Your task to perform on an android device: Clear the shopping cart on newegg. Image 0: 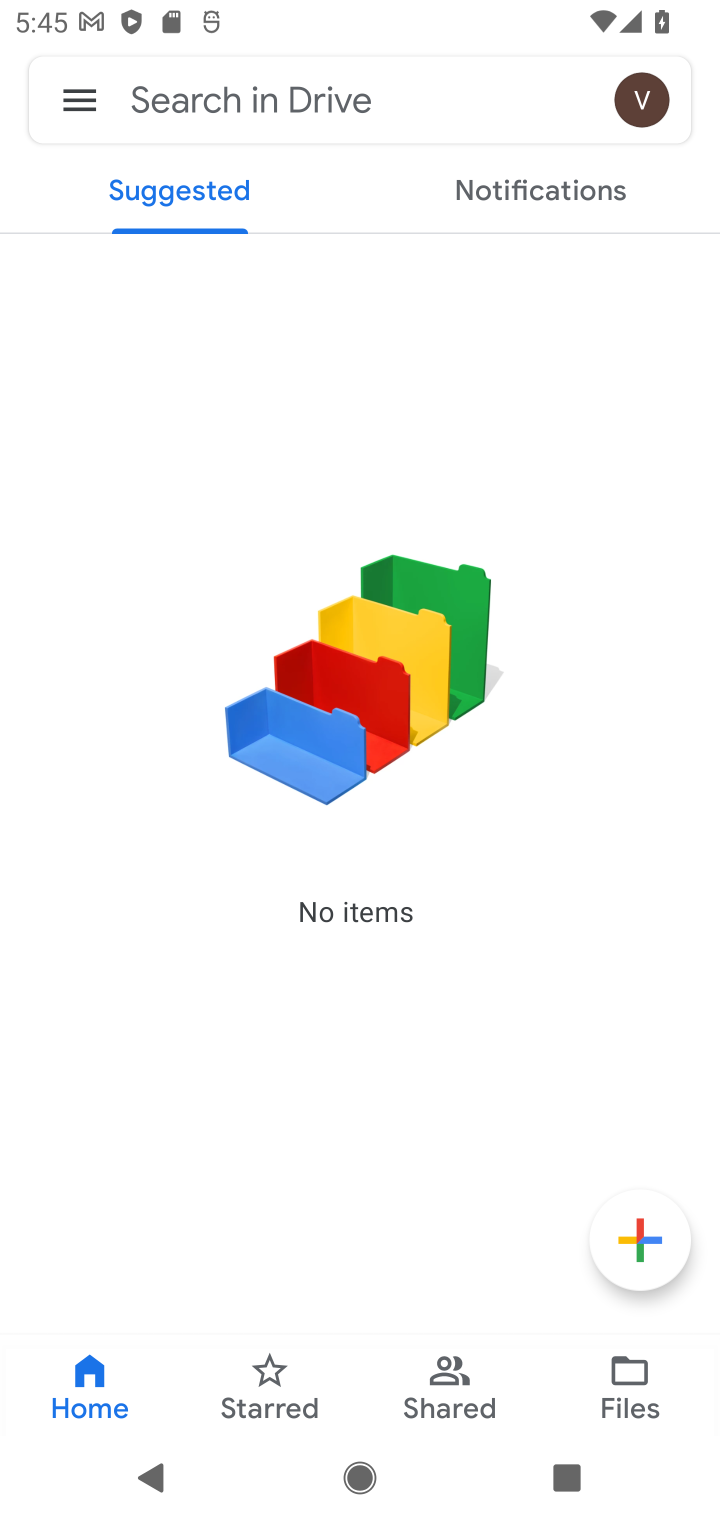
Step 0: press home button
Your task to perform on an android device: Clear the shopping cart on newegg. Image 1: 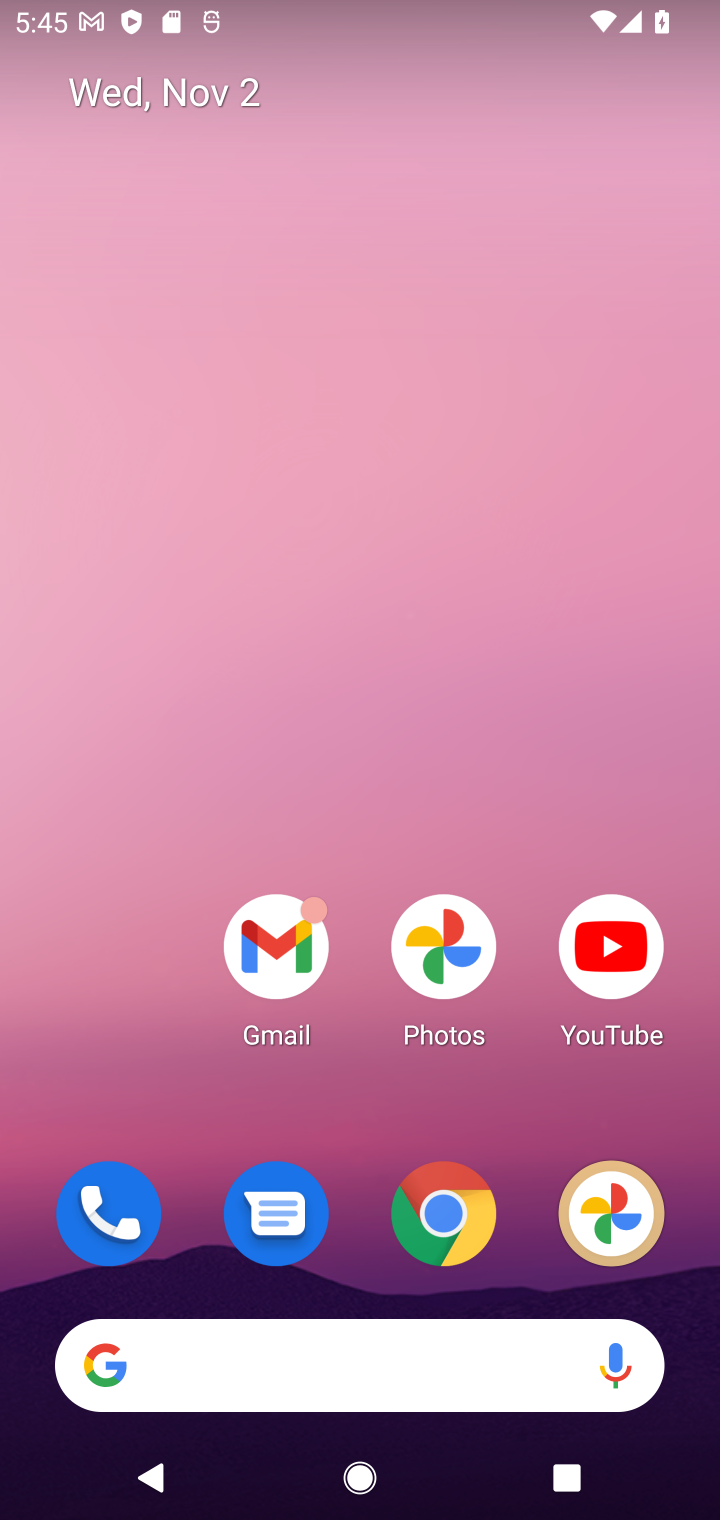
Step 1: click (434, 1221)
Your task to perform on an android device: Clear the shopping cart on newegg. Image 2: 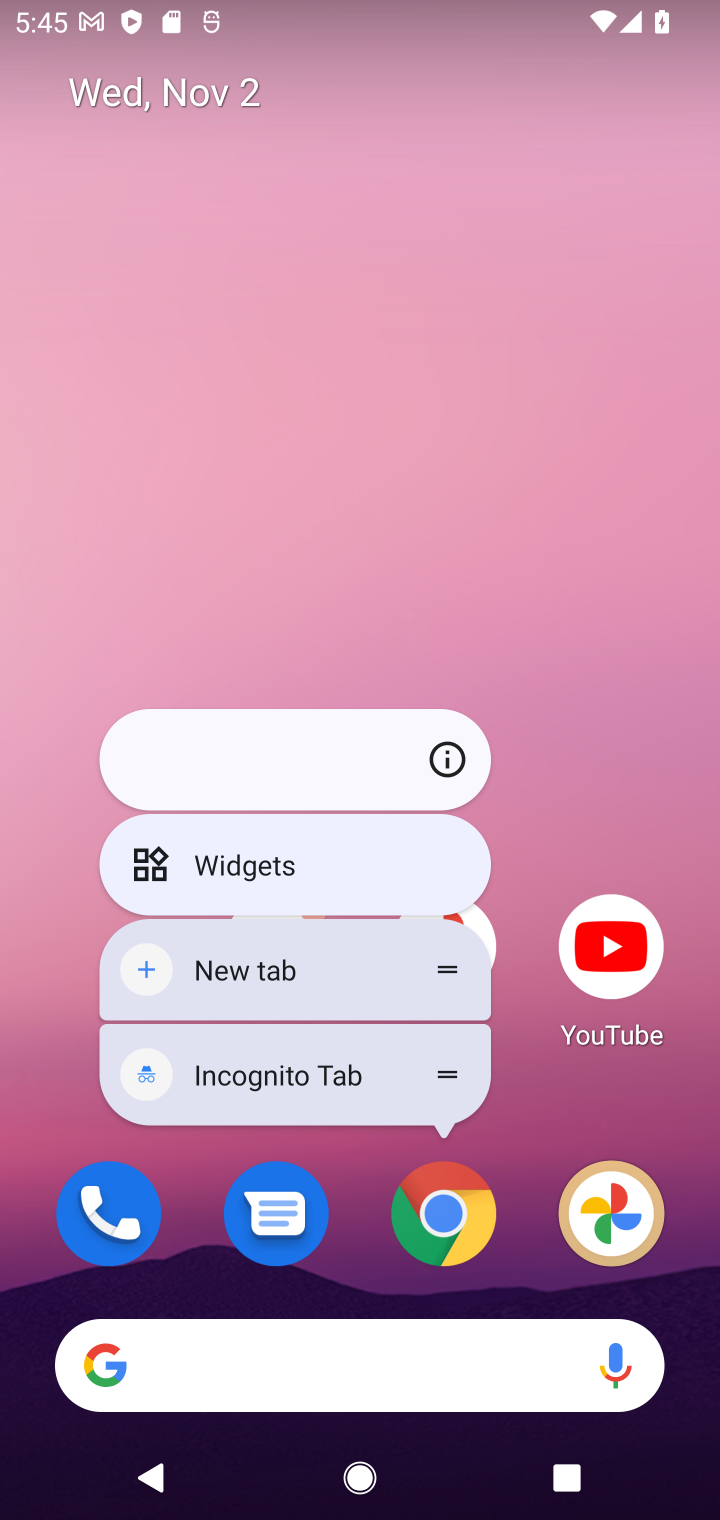
Step 2: click (450, 1220)
Your task to perform on an android device: Clear the shopping cart on newegg. Image 3: 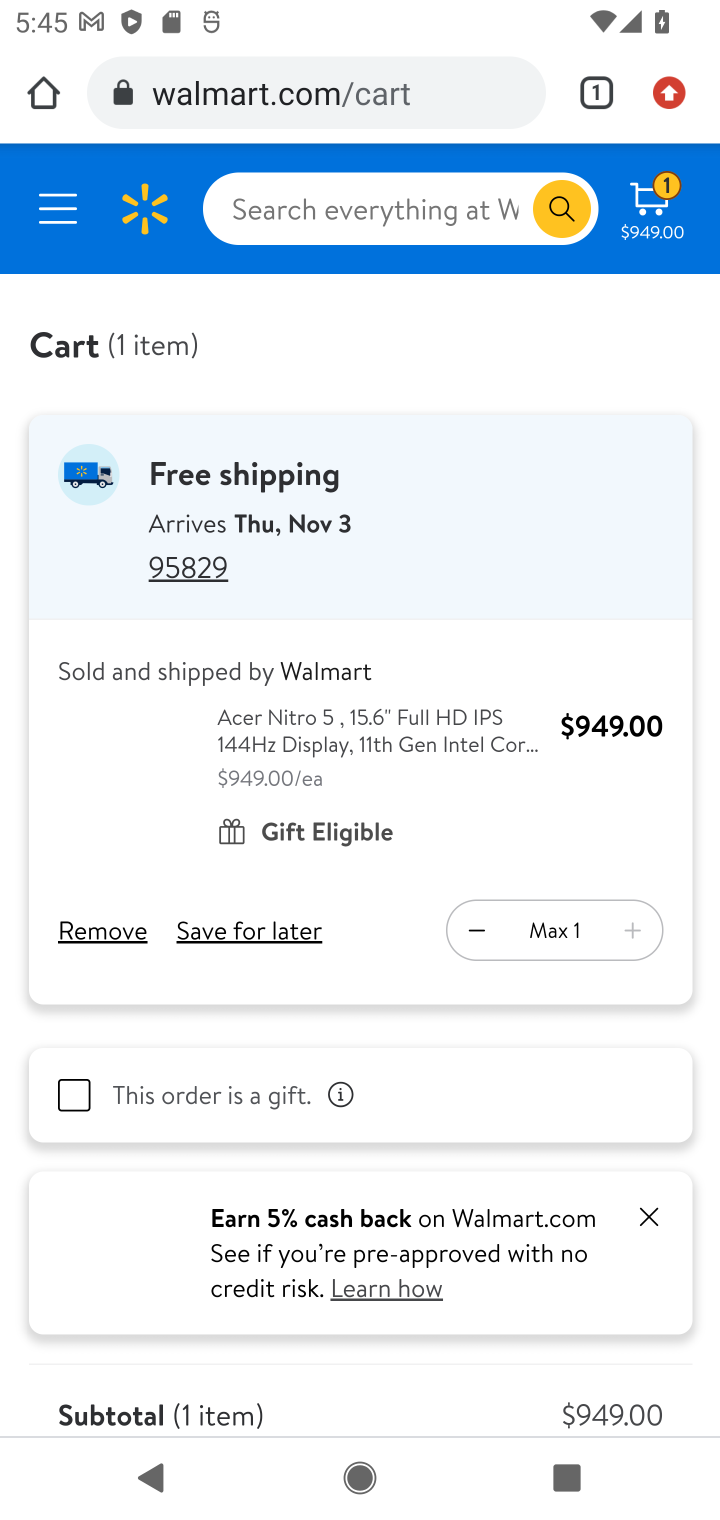
Step 3: click (429, 58)
Your task to perform on an android device: Clear the shopping cart on newegg. Image 4: 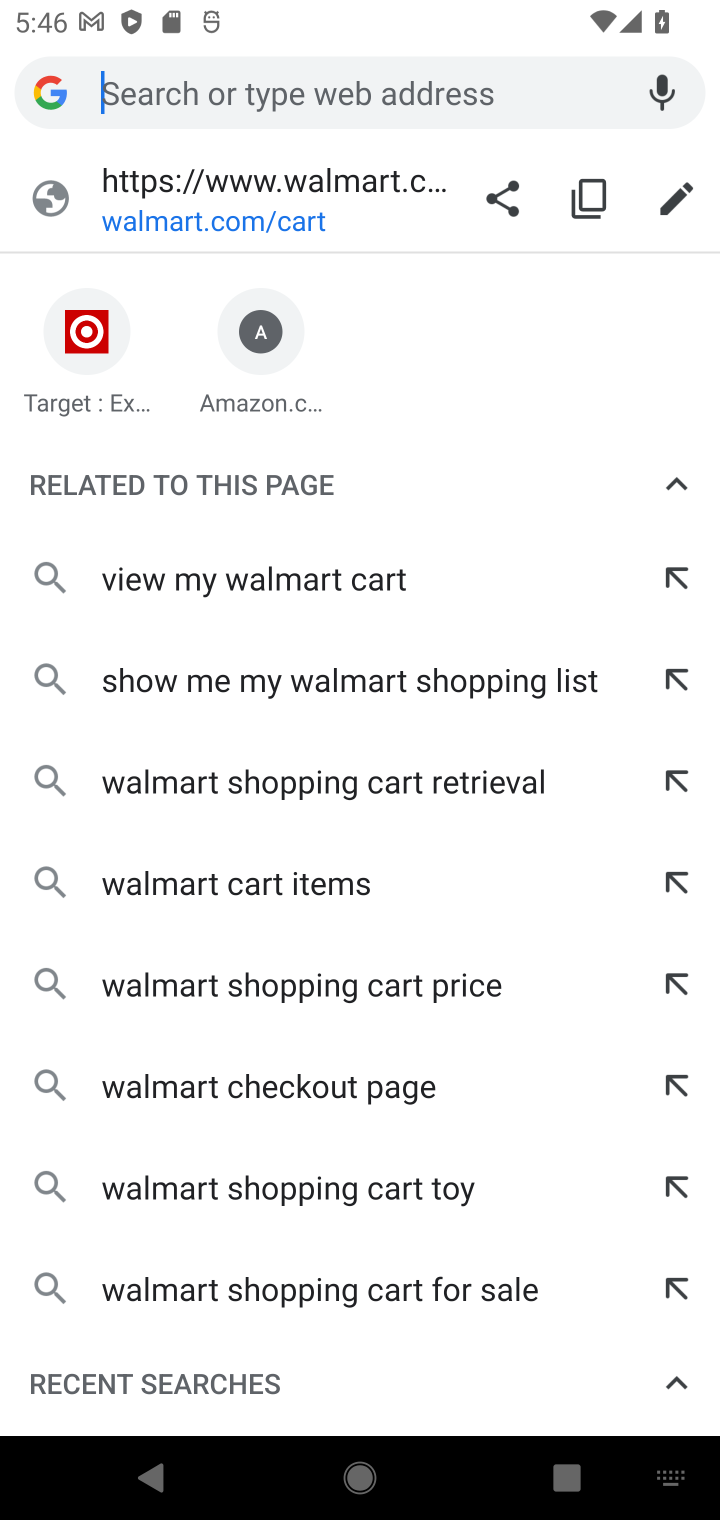
Step 4: type "newegg"
Your task to perform on an android device: Clear the shopping cart on newegg. Image 5: 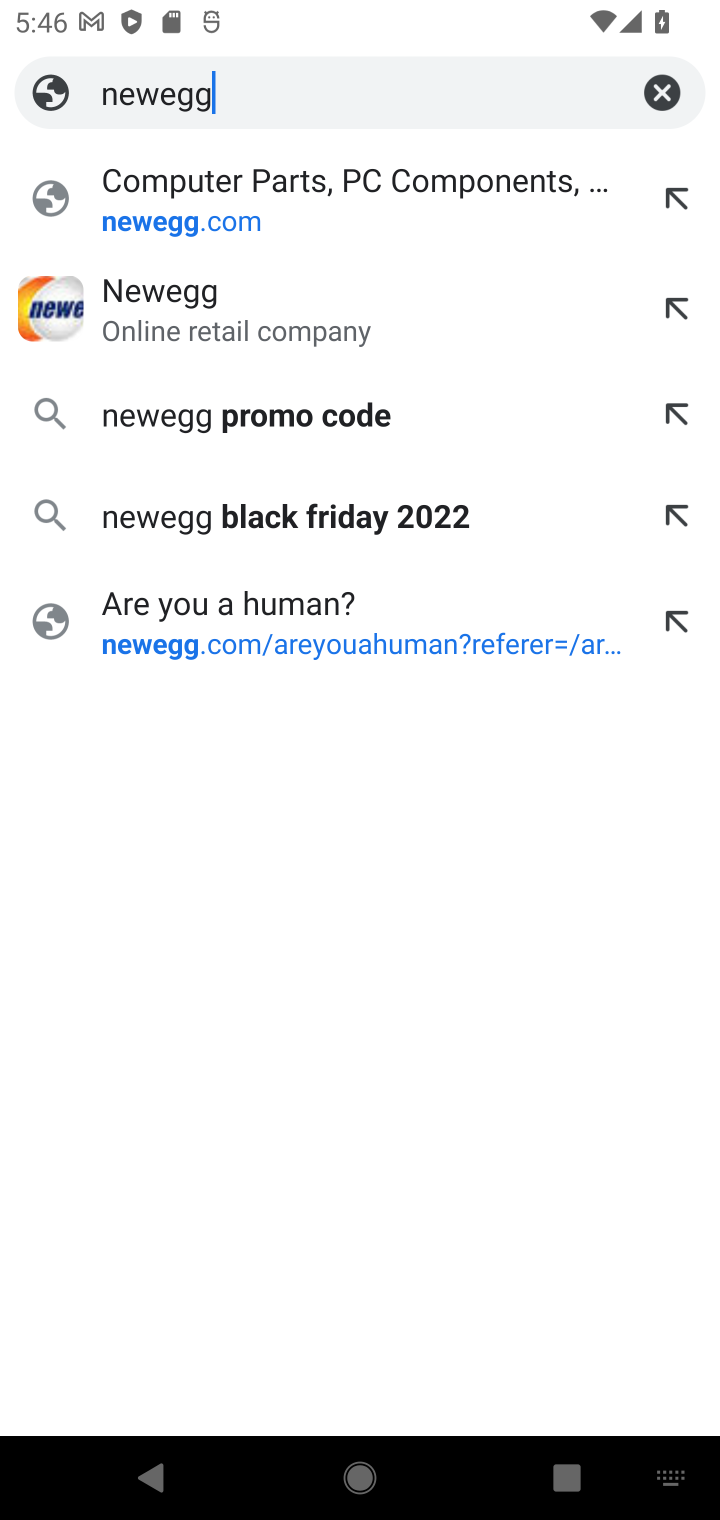
Step 5: click (171, 302)
Your task to perform on an android device: Clear the shopping cart on newegg. Image 6: 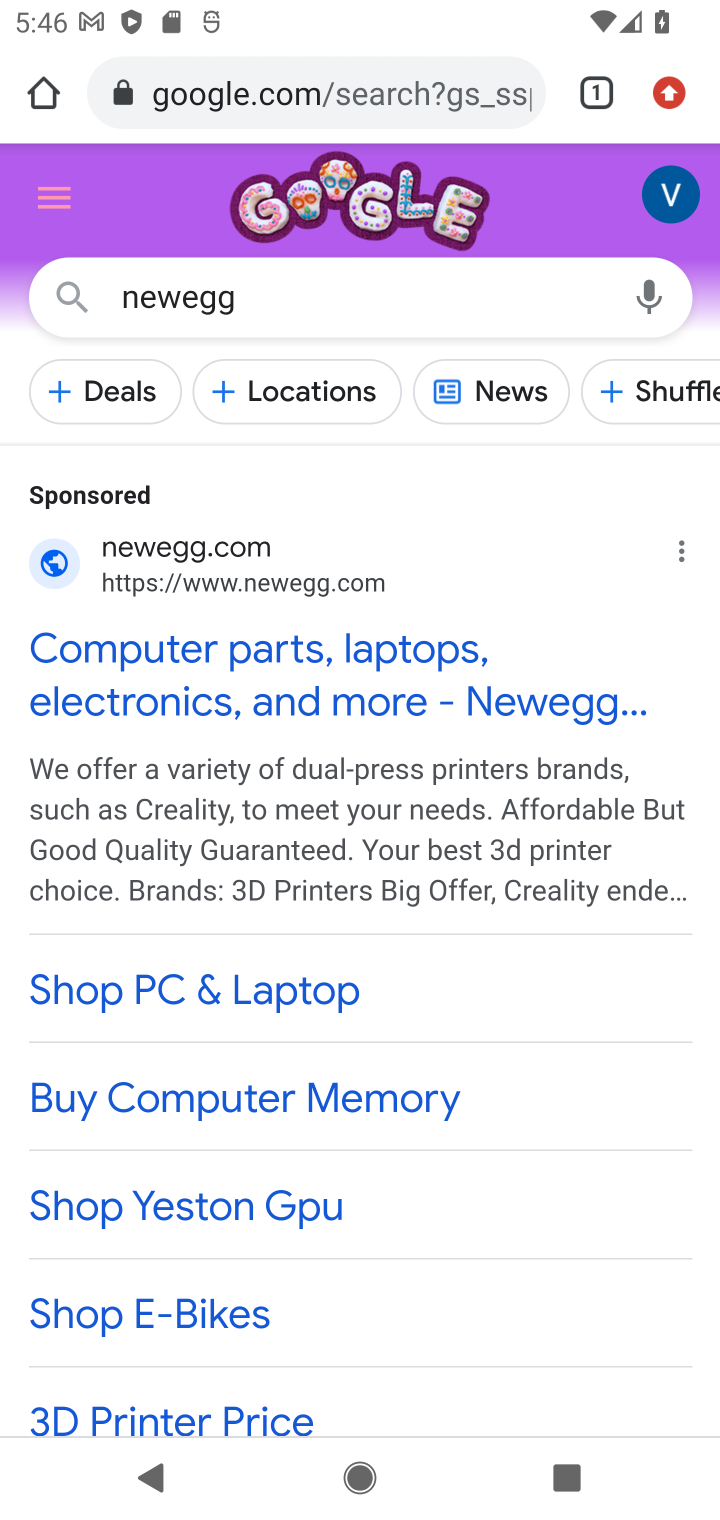
Step 6: click (206, 684)
Your task to perform on an android device: Clear the shopping cart on newegg. Image 7: 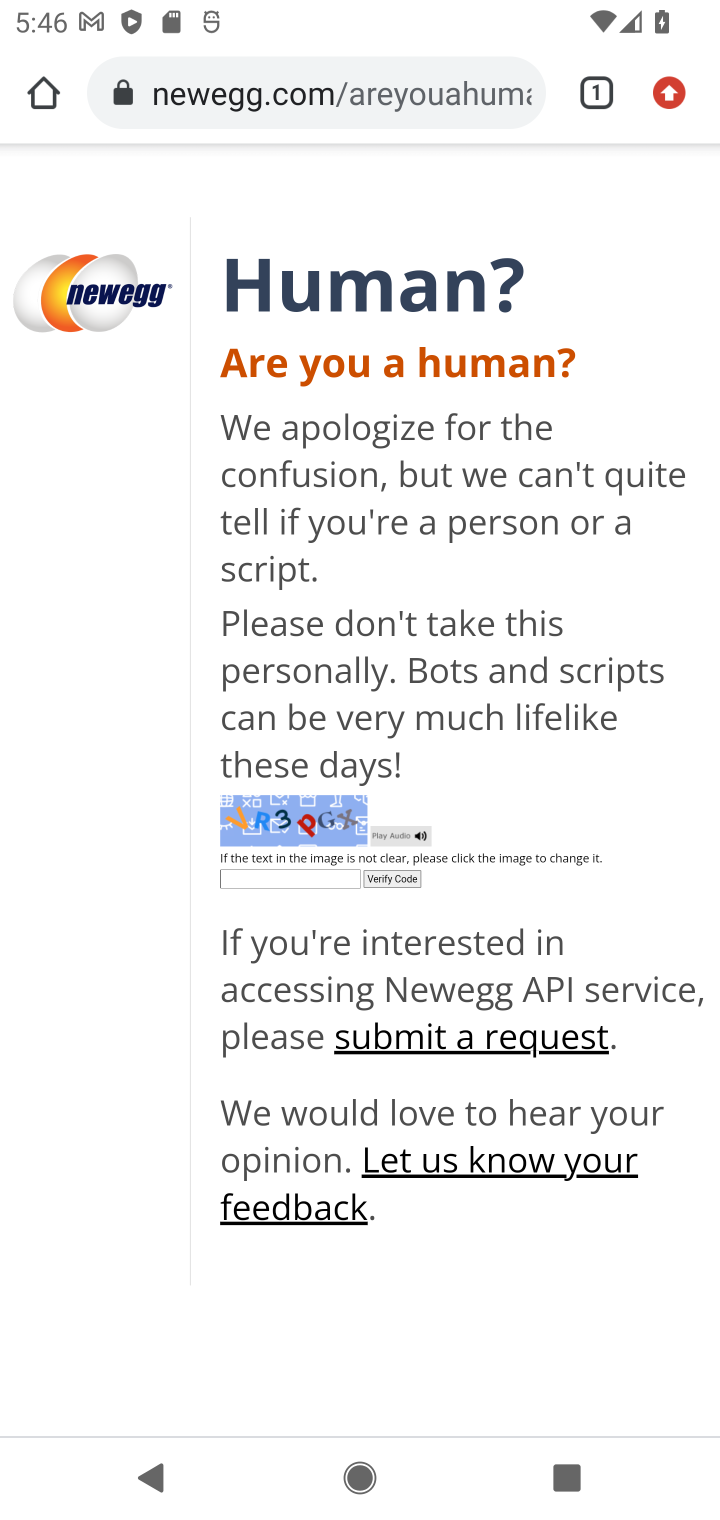
Step 7: click (251, 875)
Your task to perform on an android device: Clear the shopping cart on newegg. Image 8: 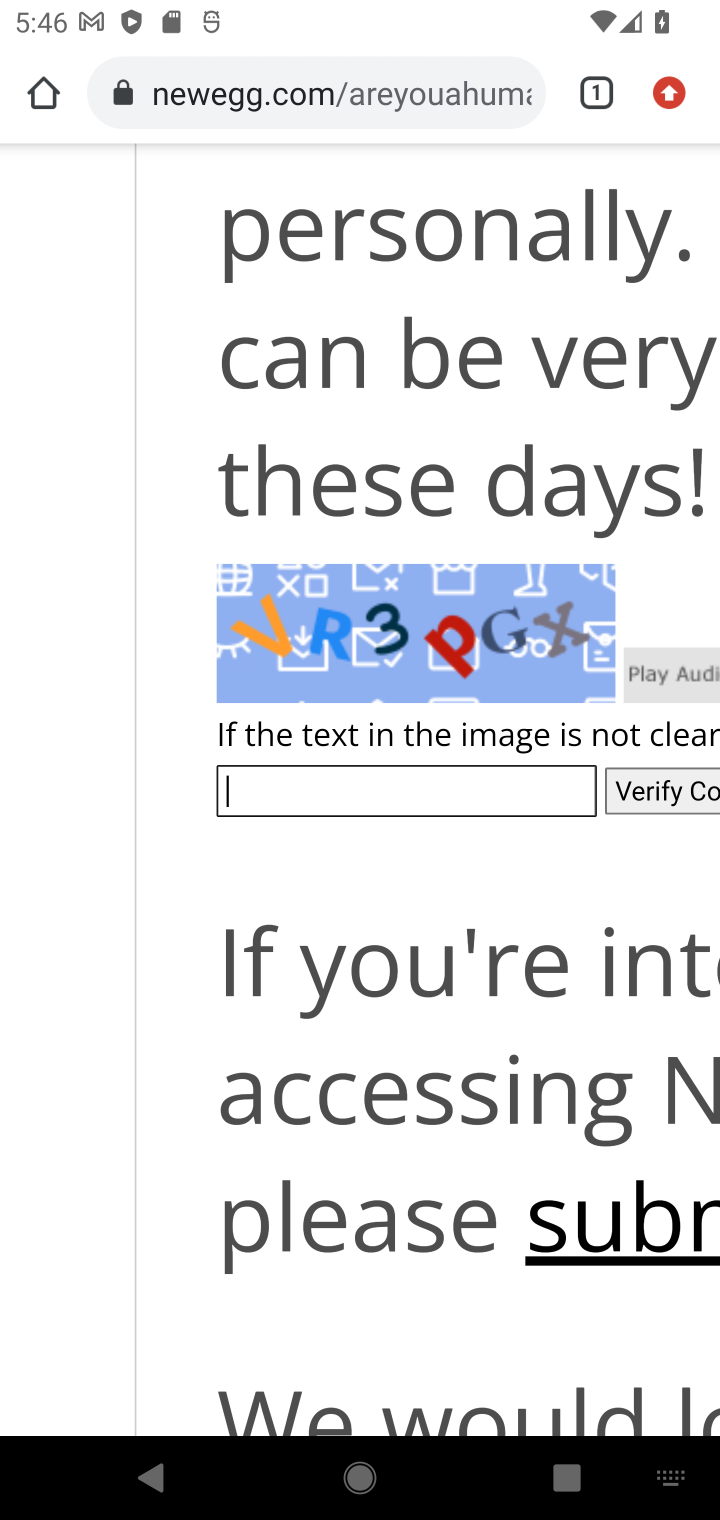
Step 8: type "VR3PGX"
Your task to perform on an android device: Clear the shopping cart on newegg. Image 9: 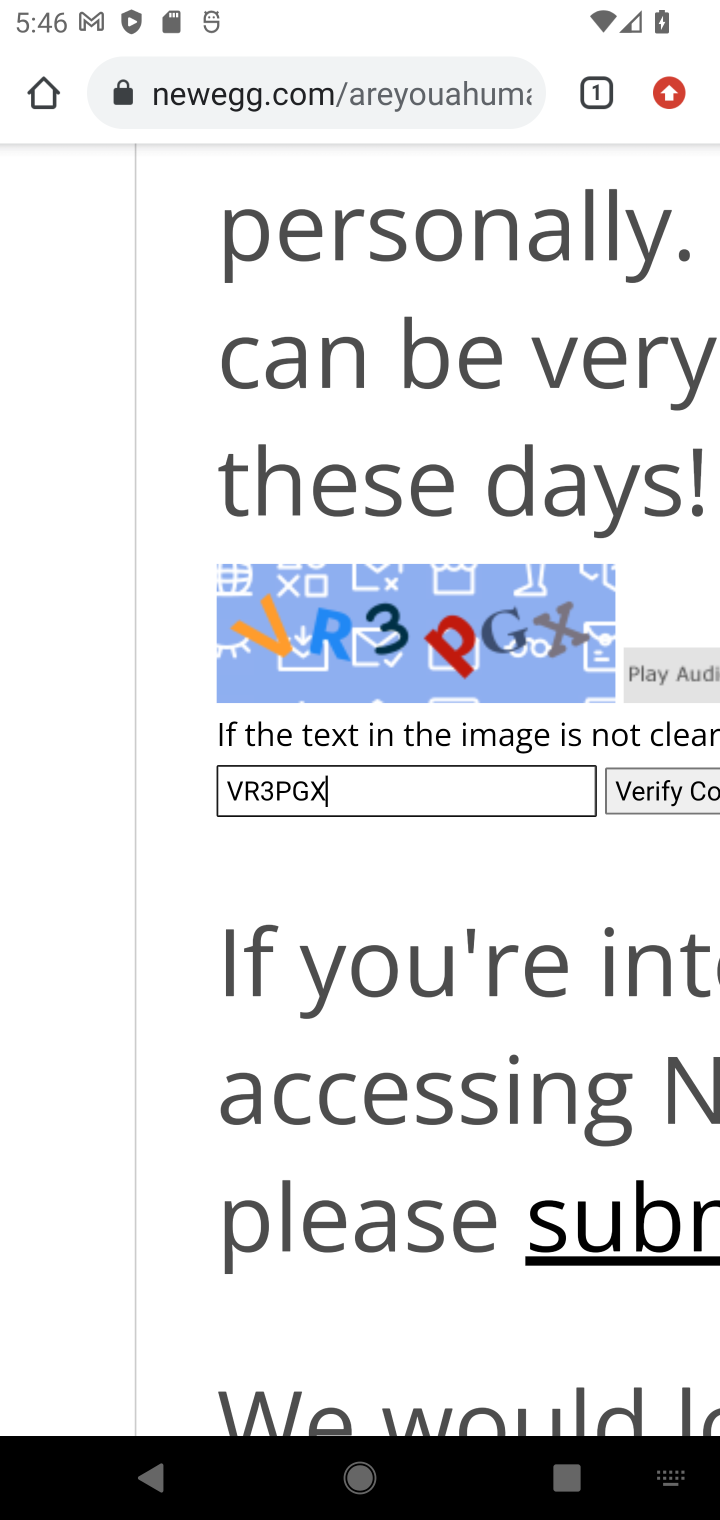
Step 9: click (673, 786)
Your task to perform on an android device: Clear the shopping cart on newegg. Image 10: 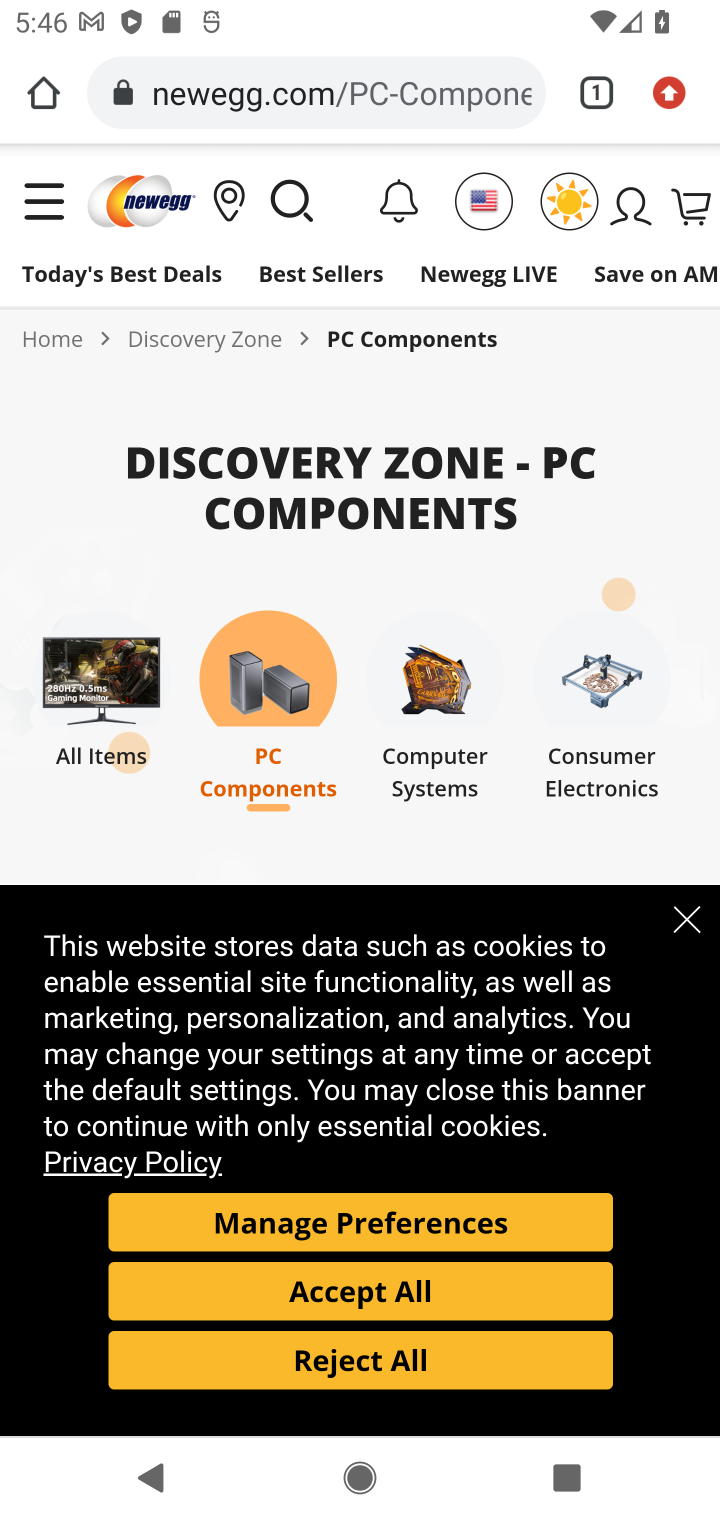
Step 10: click (339, 1285)
Your task to perform on an android device: Clear the shopping cart on newegg. Image 11: 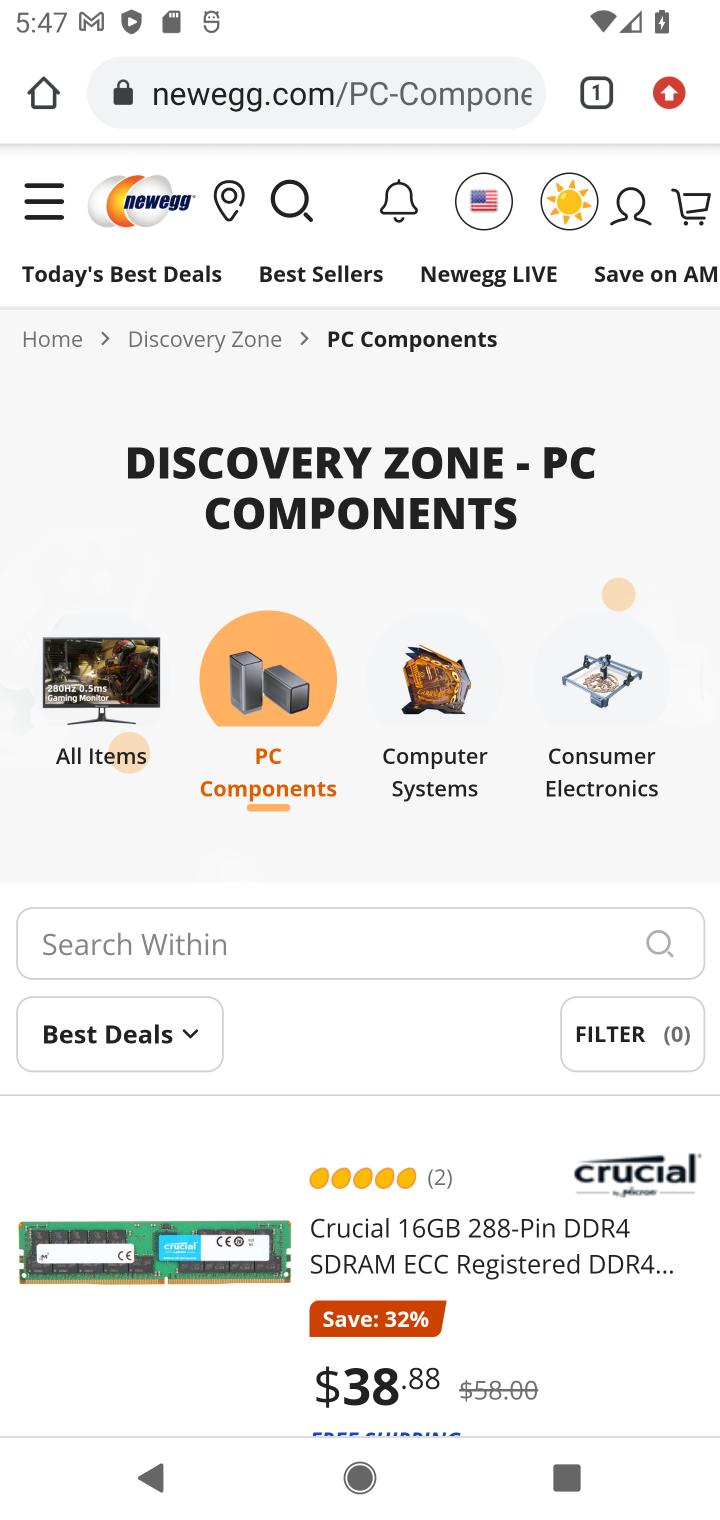
Step 11: click (686, 208)
Your task to perform on an android device: Clear the shopping cart on newegg. Image 12: 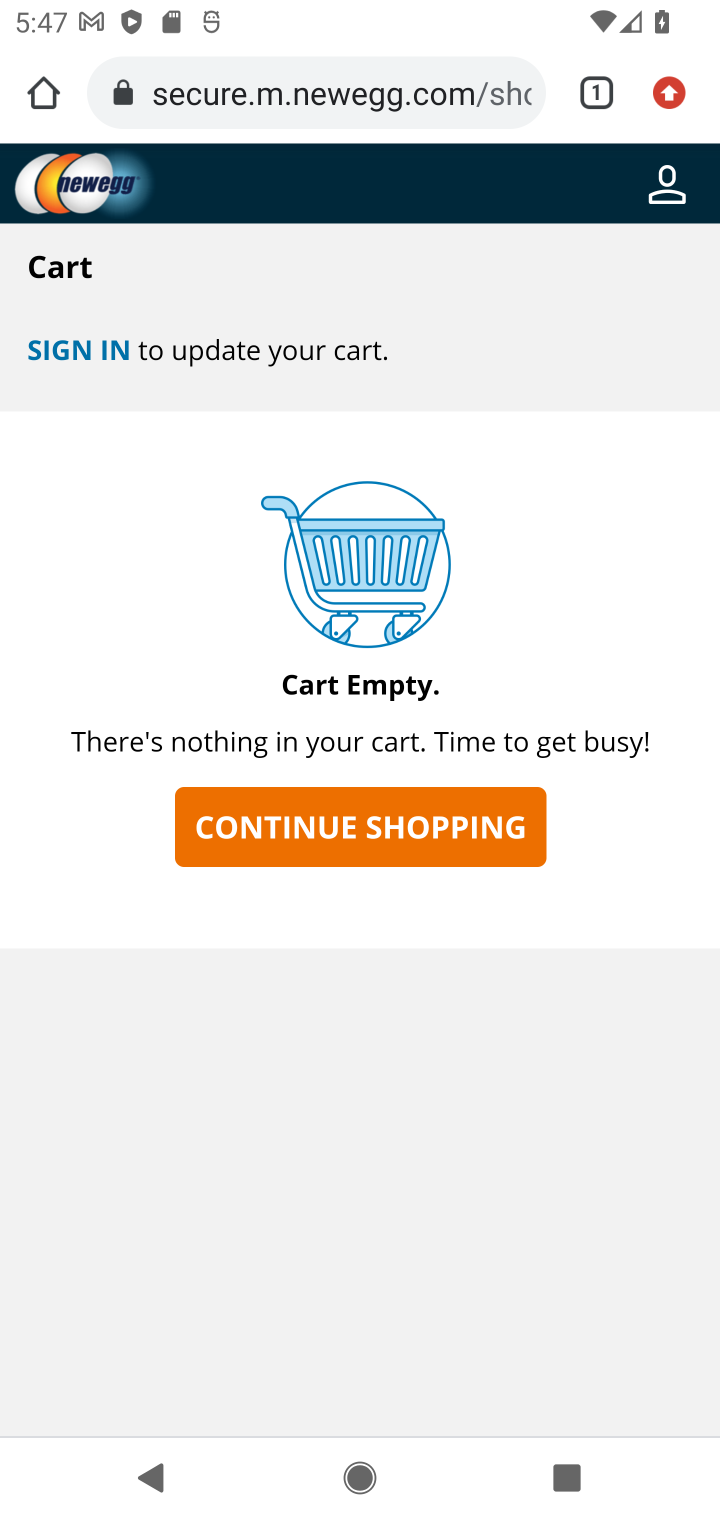
Step 12: task complete